Your task to perform on an android device: Go to privacy settings Image 0: 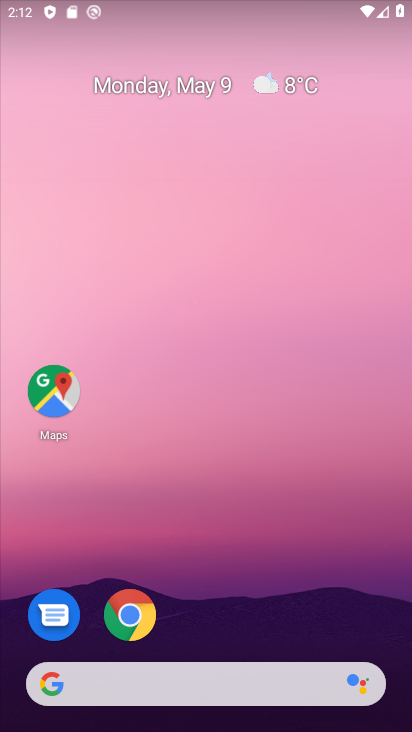
Step 0: drag from (232, 681) to (276, 495)
Your task to perform on an android device: Go to privacy settings Image 1: 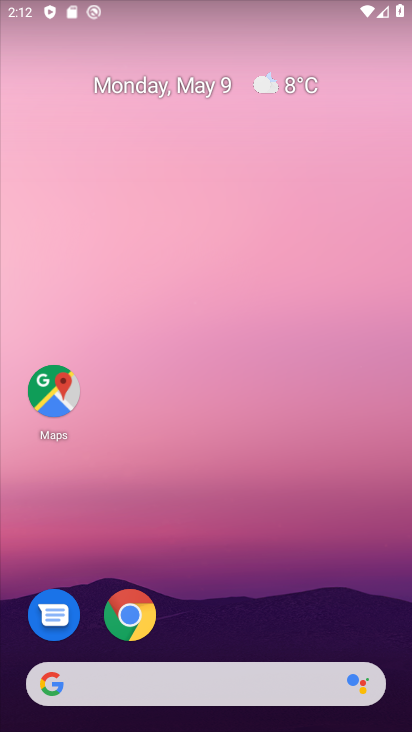
Step 1: click (120, 628)
Your task to perform on an android device: Go to privacy settings Image 2: 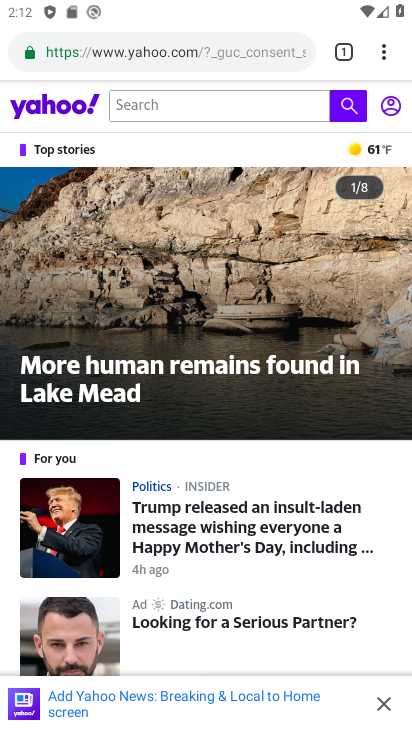
Step 2: drag from (384, 65) to (256, 626)
Your task to perform on an android device: Go to privacy settings Image 3: 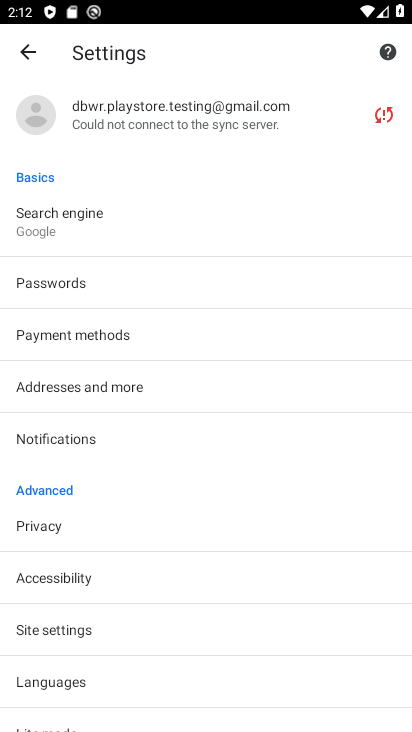
Step 3: click (119, 527)
Your task to perform on an android device: Go to privacy settings Image 4: 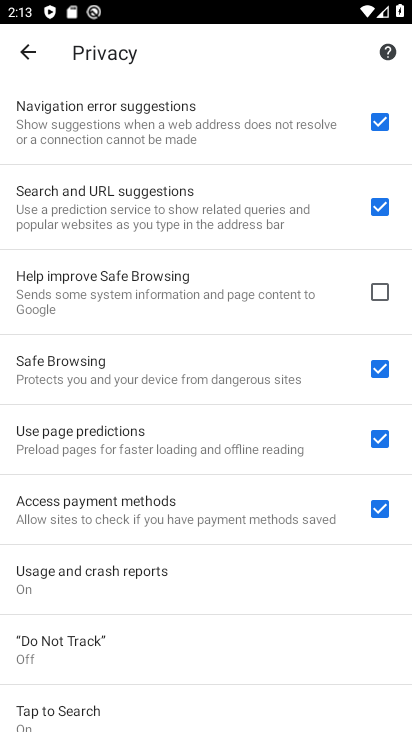
Step 4: task complete